Your task to perform on an android device: Play the last video I watched on Youtube Image 0: 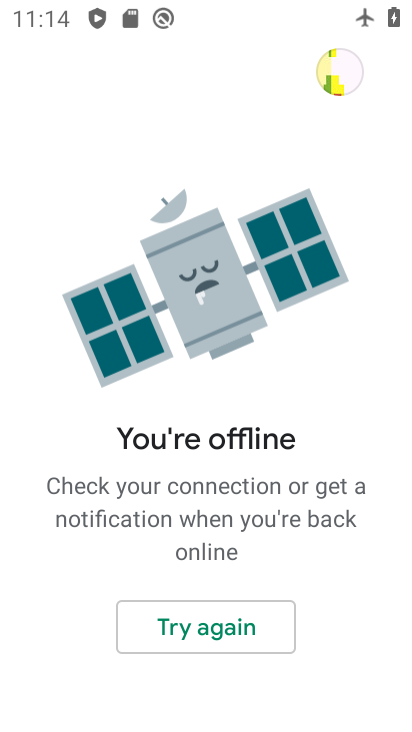
Step 0: press home button
Your task to perform on an android device: Play the last video I watched on Youtube Image 1: 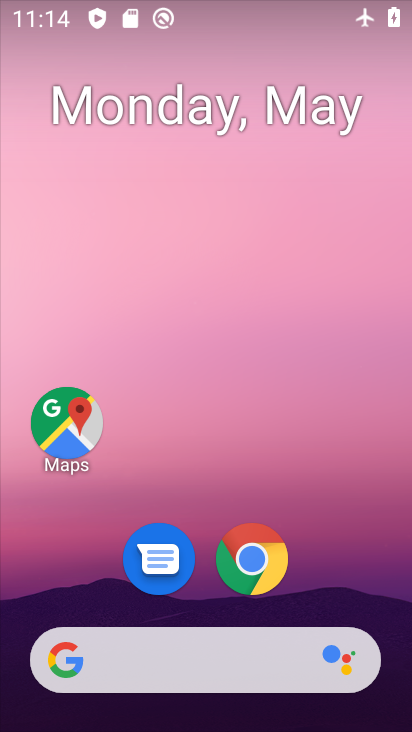
Step 1: drag from (394, 656) to (297, 8)
Your task to perform on an android device: Play the last video I watched on Youtube Image 2: 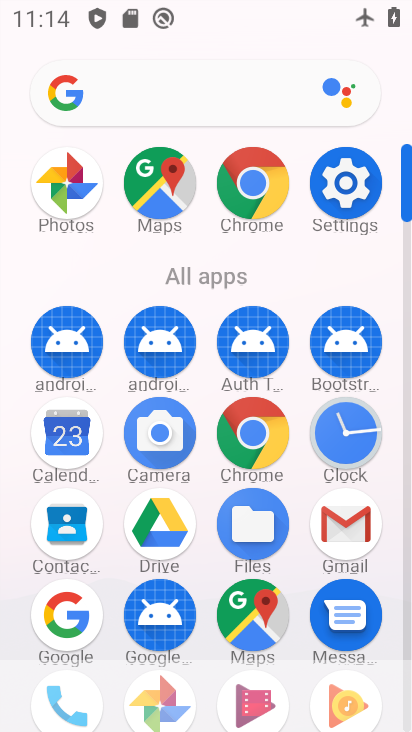
Step 2: drag from (298, 611) to (306, 126)
Your task to perform on an android device: Play the last video I watched on Youtube Image 3: 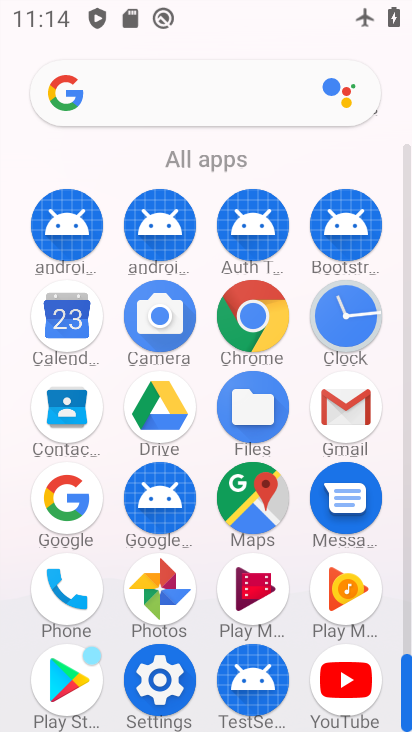
Step 3: click (337, 680)
Your task to perform on an android device: Play the last video I watched on Youtube Image 4: 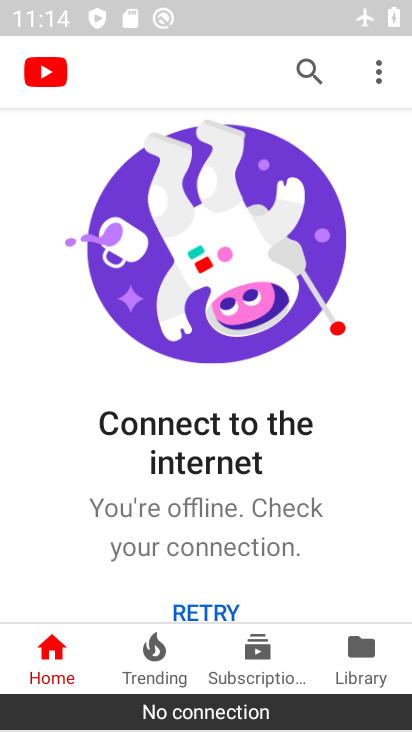
Step 4: task complete